Your task to perform on an android device: turn on location history Image 0: 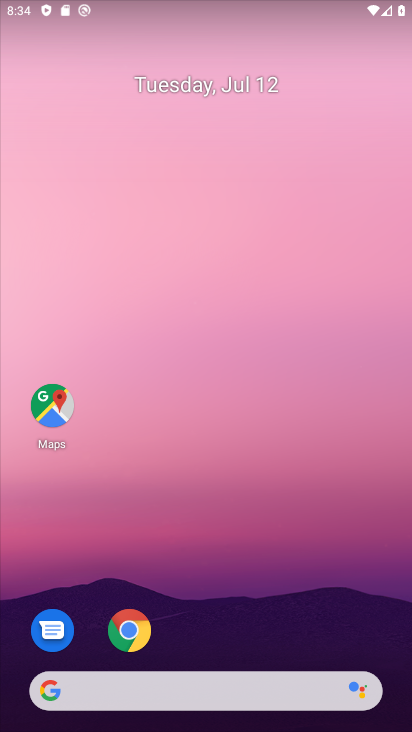
Step 0: press home button
Your task to perform on an android device: turn on location history Image 1: 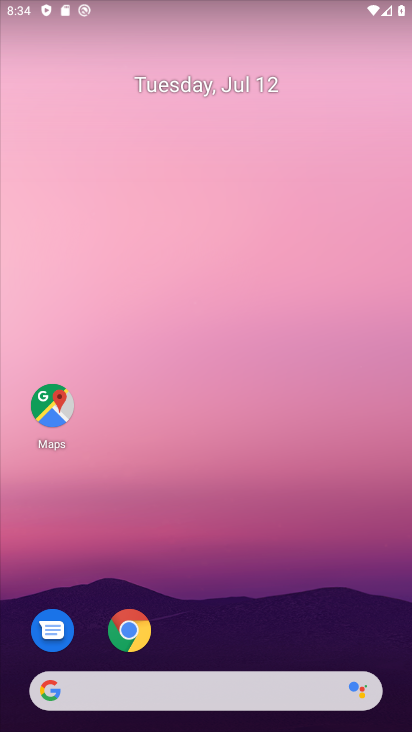
Step 1: drag from (240, 589) to (263, 73)
Your task to perform on an android device: turn on location history Image 2: 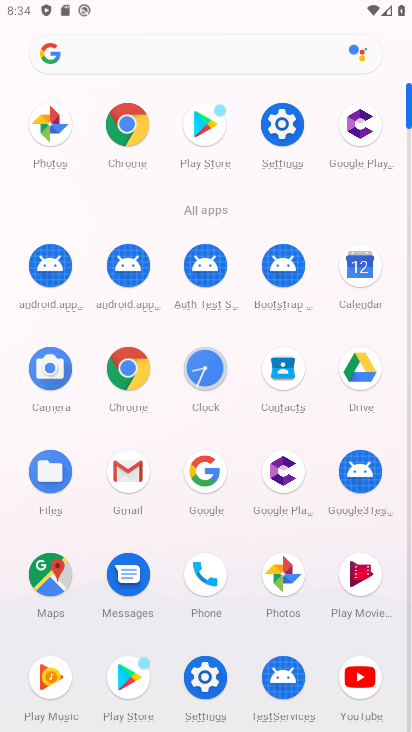
Step 2: click (282, 128)
Your task to perform on an android device: turn on location history Image 3: 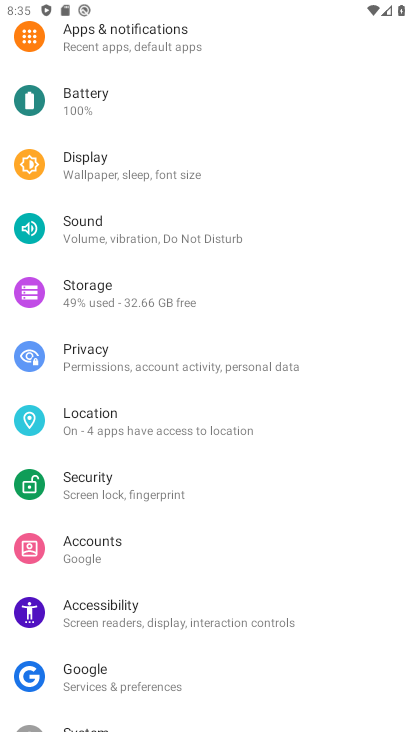
Step 3: click (127, 426)
Your task to perform on an android device: turn on location history Image 4: 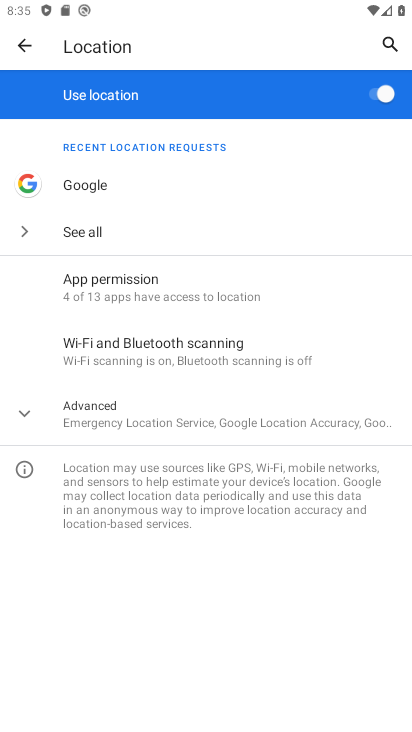
Step 4: click (24, 416)
Your task to perform on an android device: turn on location history Image 5: 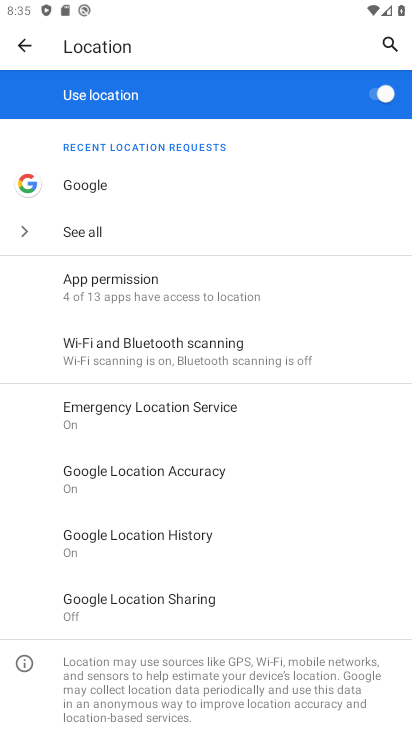
Step 5: click (157, 538)
Your task to perform on an android device: turn on location history Image 6: 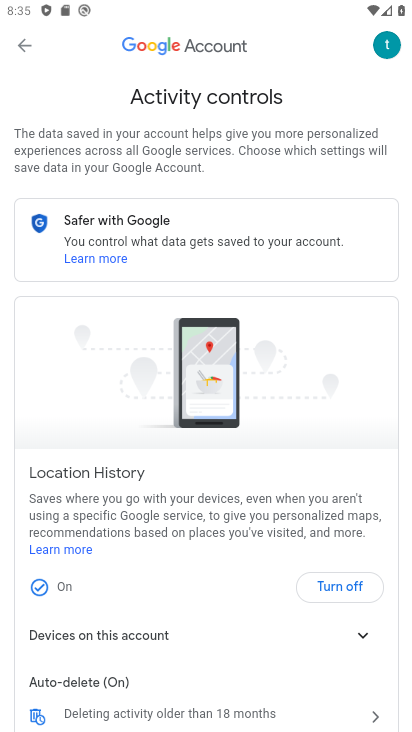
Step 6: task complete